Your task to perform on an android device: turn on wifi Image 0: 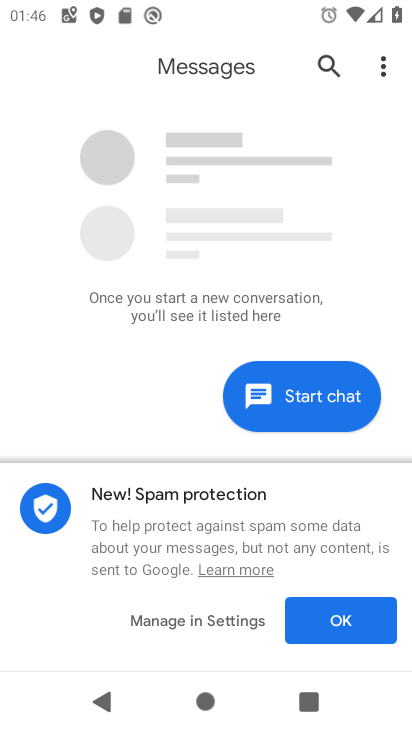
Step 0: press home button
Your task to perform on an android device: turn on wifi Image 1: 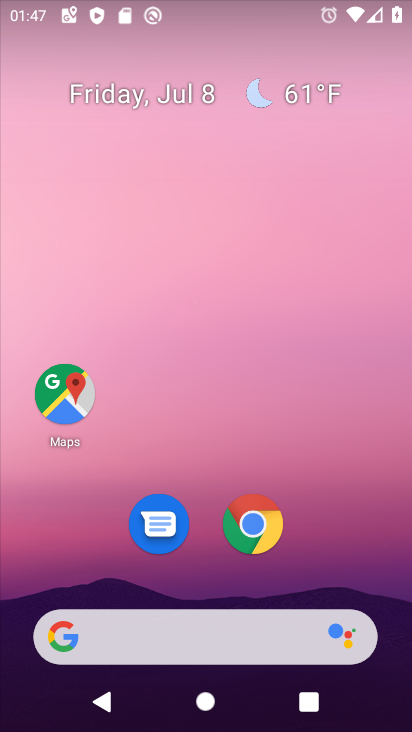
Step 1: drag from (333, 546) to (371, 36)
Your task to perform on an android device: turn on wifi Image 2: 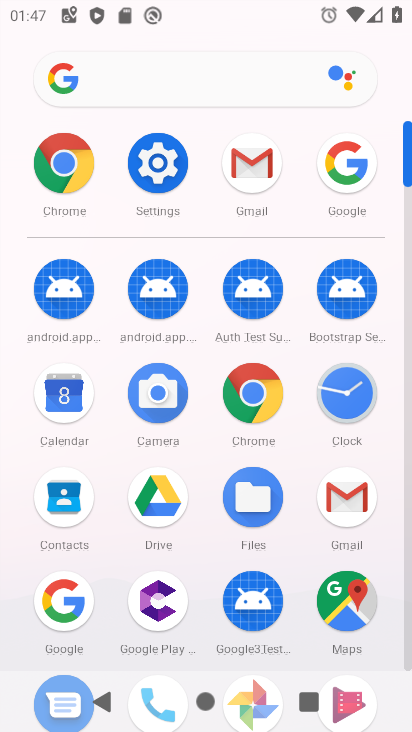
Step 2: click (144, 166)
Your task to perform on an android device: turn on wifi Image 3: 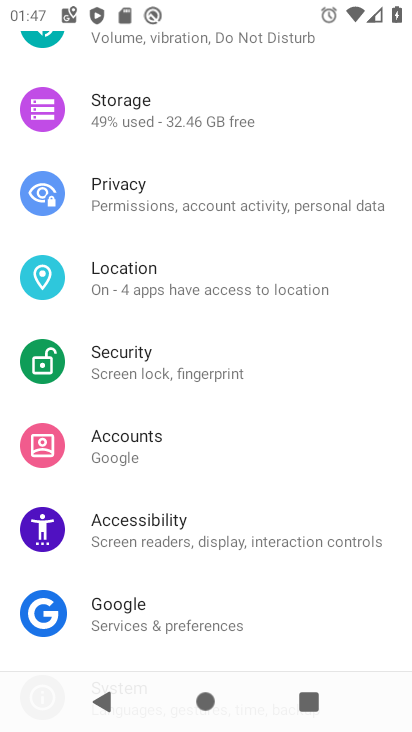
Step 3: drag from (259, 114) to (258, 540)
Your task to perform on an android device: turn on wifi Image 4: 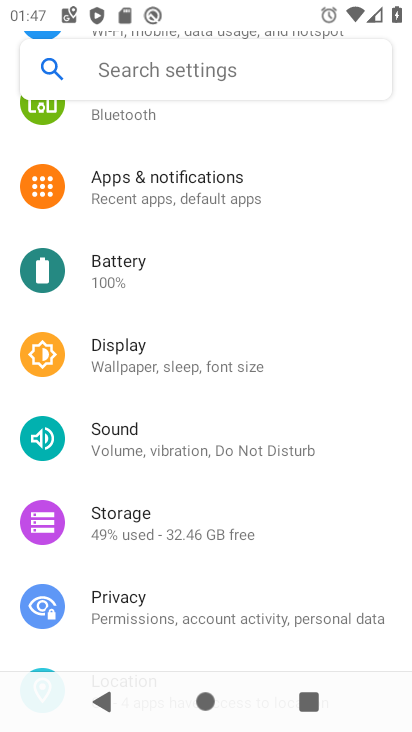
Step 4: drag from (218, 138) to (243, 445)
Your task to perform on an android device: turn on wifi Image 5: 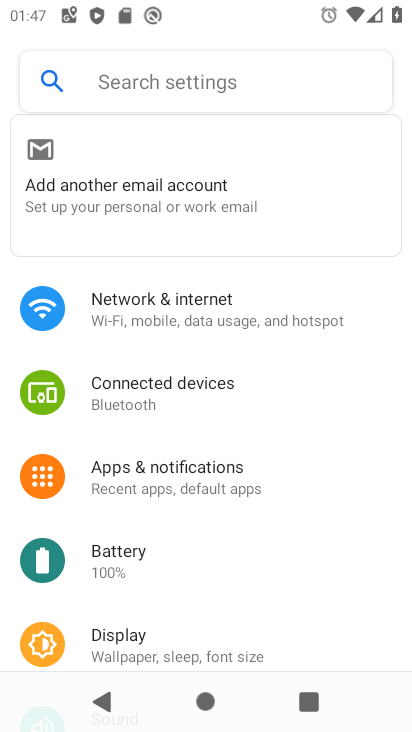
Step 5: click (244, 315)
Your task to perform on an android device: turn on wifi Image 6: 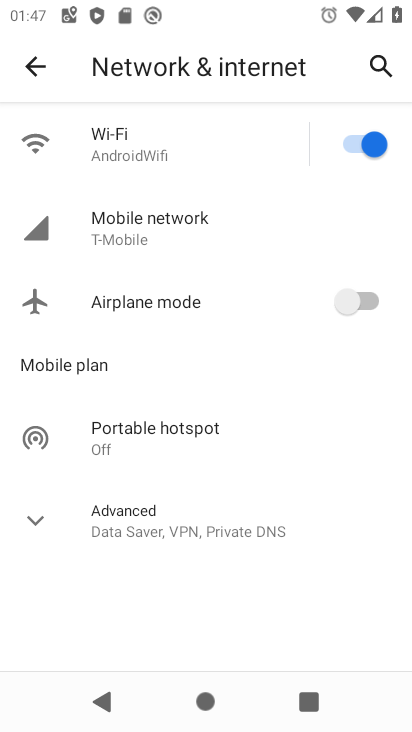
Step 6: task complete